Your task to perform on an android device: Search for seafood restaurants on Google Maps Image 0: 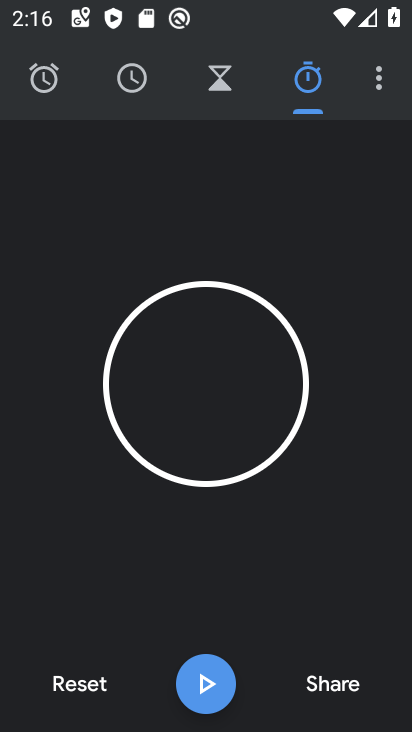
Step 0: press home button
Your task to perform on an android device: Search for seafood restaurants on Google Maps Image 1: 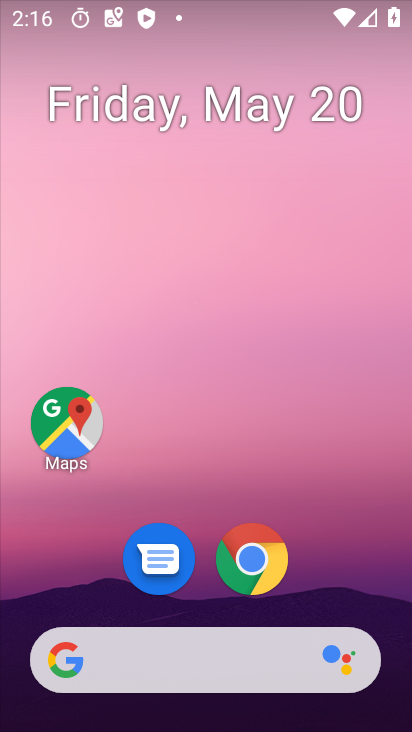
Step 1: click (67, 429)
Your task to perform on an android device: Search for seafood restaurants on Google Maps Image 2: 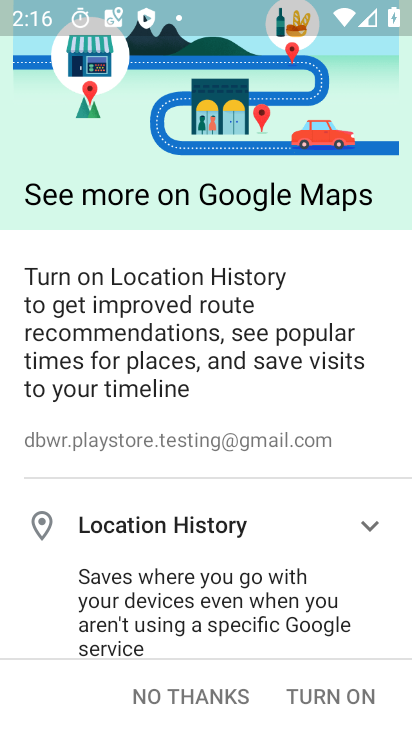
Step 2: click (189, 697)
Your task to perform on an android device: Search for seafood restaurants on Google Maps Image 3: 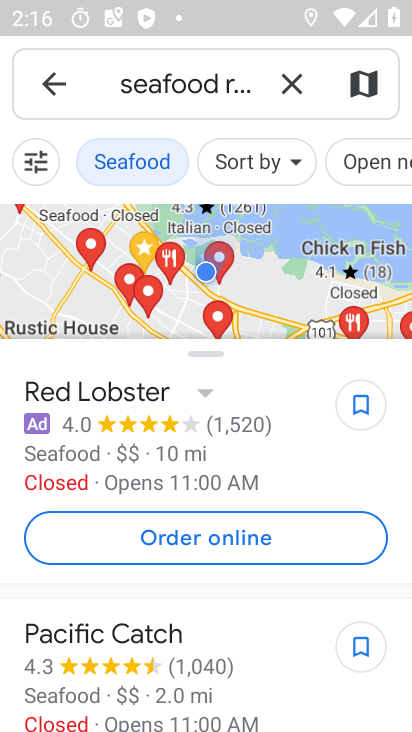
Step 3: task complete